Your task to perform on an android device: Go to display settings Image 0: 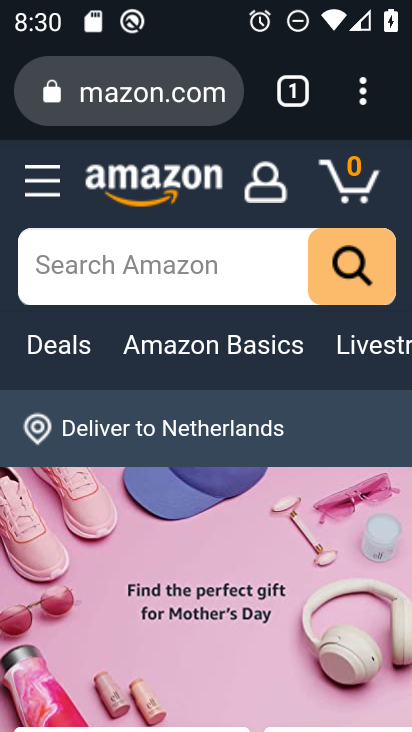
Step 0: press home button
Your task to perform on an android device: Go to display settings Image 1: 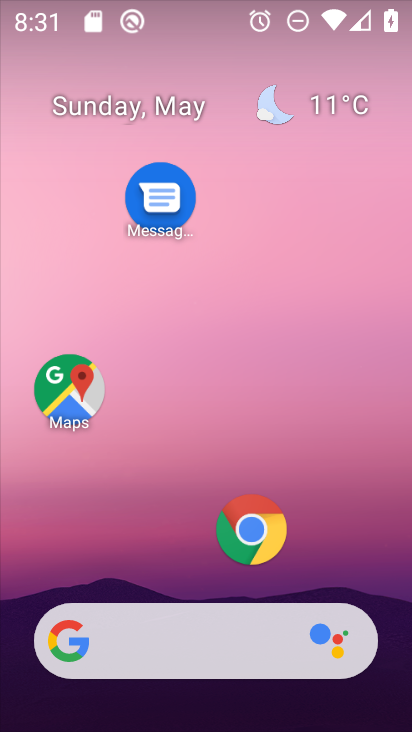
Step 1: drag from (197, 581) to (237, 103)
Your task to perform on an android device: Go to display settings Image 2: 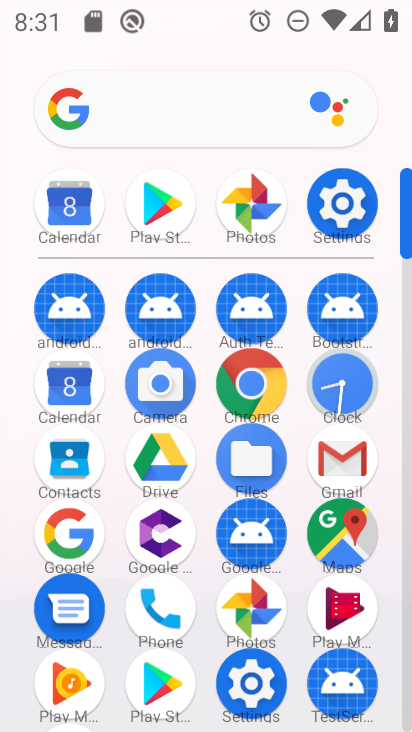
Step 2: click (340, 197)
Your task to perform on an android device: Go to display settings Image 3: 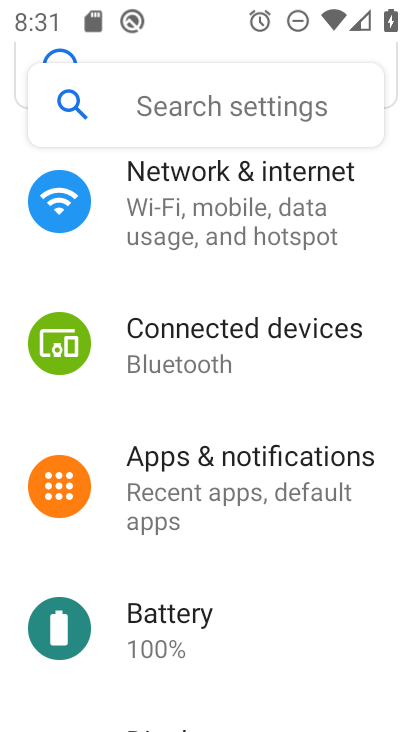
Step 3: drag from (228, 608) to (316, 130)
Your task to perform on an android device: Go to display settings Image 4: 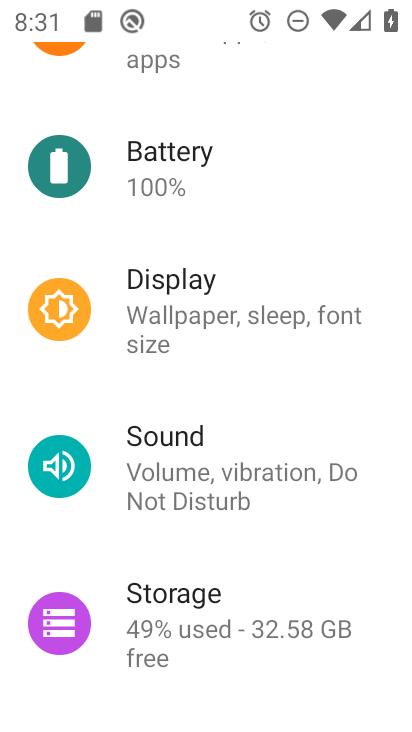
Step 4: click (227, 284)
Your task to perform on an android device: Go to display settings Image 5: 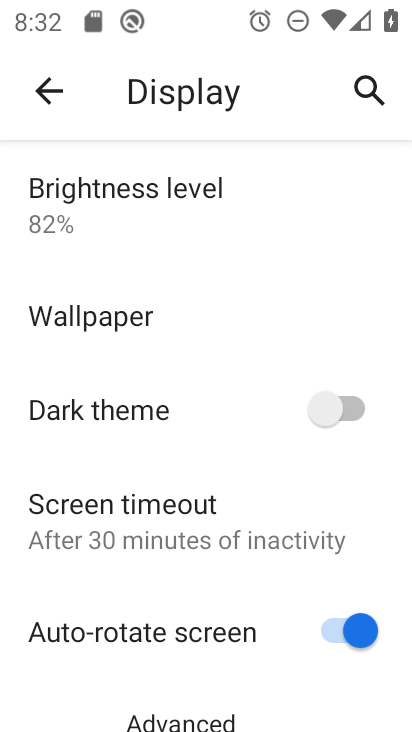
Step 5: drag from (181, 568) to (236, 66)
Your task to perform on an android device: Go to display settings Image 6: 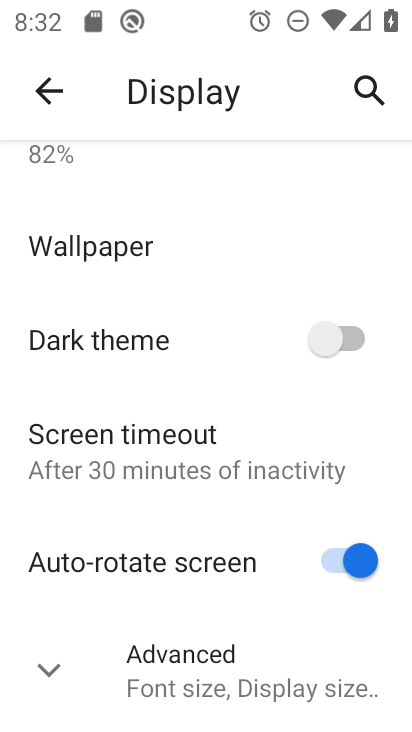
Step 6: click (50, 664)
Your task to perform on an android device: Go to display settings Image 7: 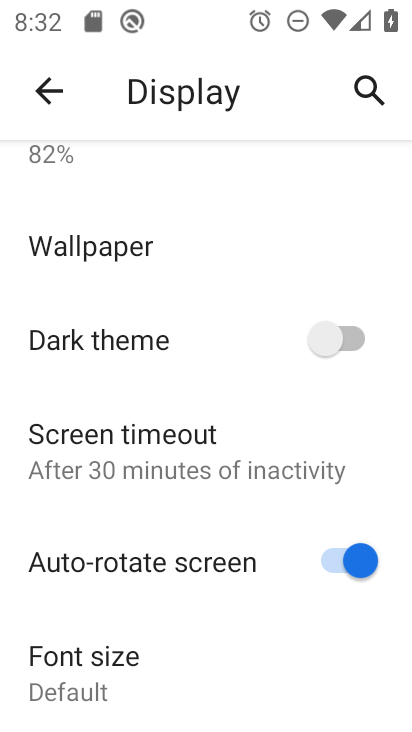
Step 7: task complete